Your task to perform on an android device: find photos in the google photos app Image 0: 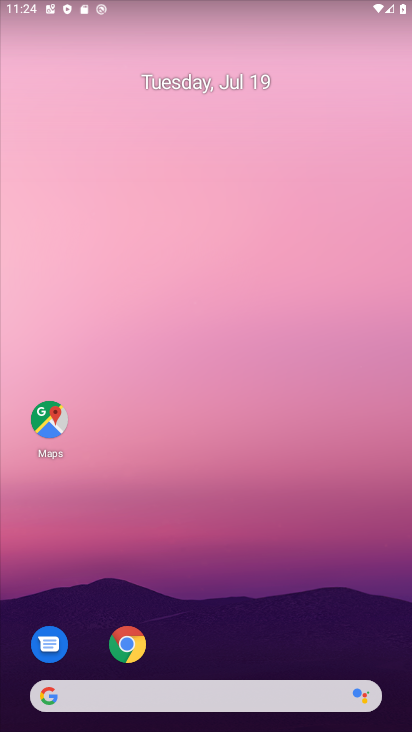
Step 0: drag from (270, 646) to (241, 228)
Your task to perform on an android device: find photos in the google photos app Image 1: 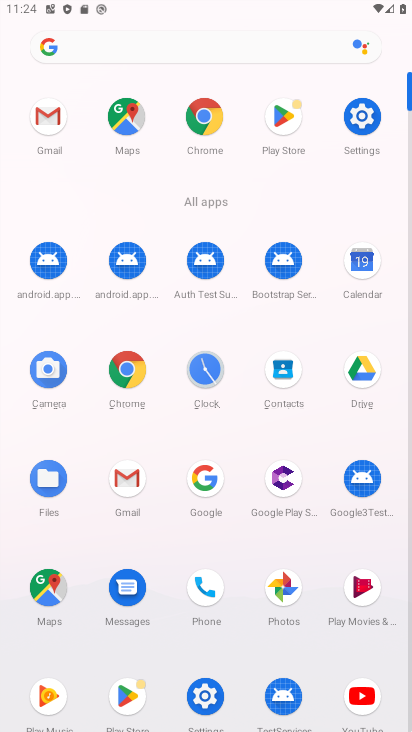
Step 1: click (279, 612)
Your task to perform on an android device: find photos in the google photos app Image 2: 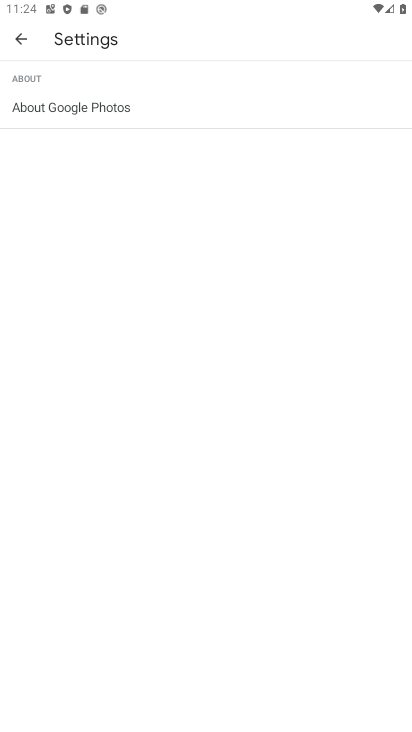
Step 2: click (21, 50)
Your task to perform on an android device: find photos in the google photos app Image 3: 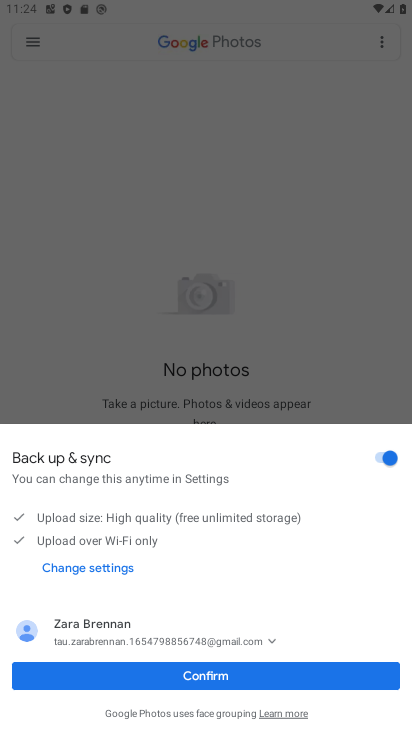
Step 3: click (216, 677)
Your task to perform on an android device: find photos in the google photos app Image 4: 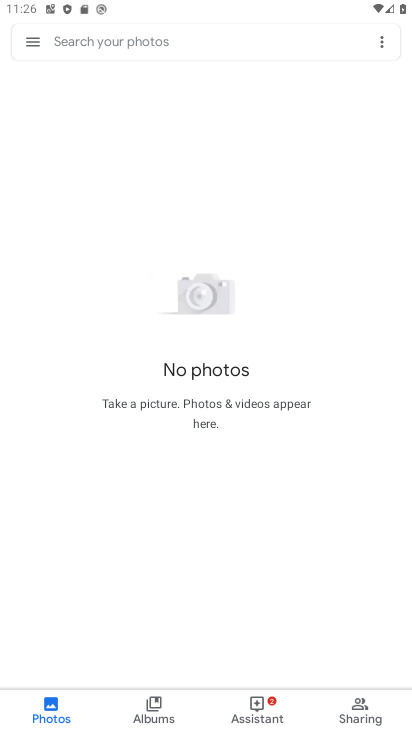
Step 4: task complete